Your task to perform on an android device: delete the emails in spam in the gmail app Image 0: 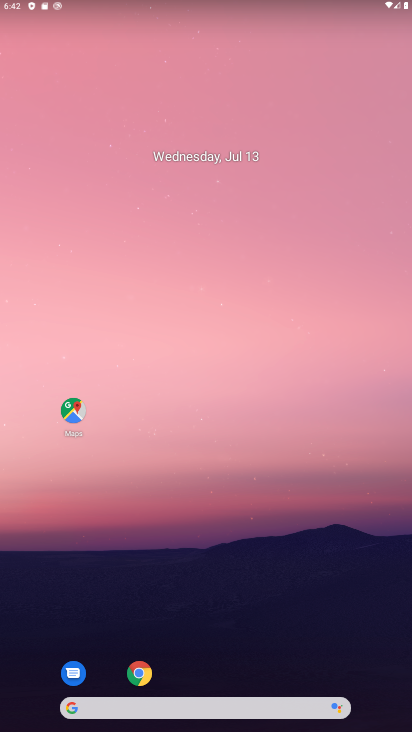
Step 0: drag from (206, 584) to (202, 32)
Your task to perform on an android device: delete the emails in spam in the gmail app Image 1: 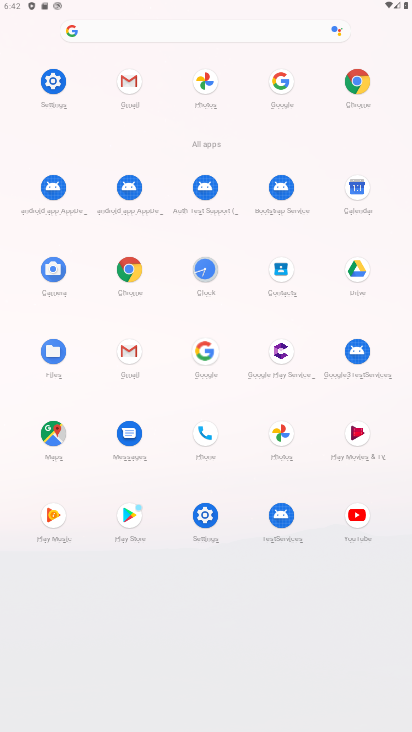
Step 1: click (141, 83)
Your task to perform on an android device: delete the emails in spam in the gmail app Image 2: 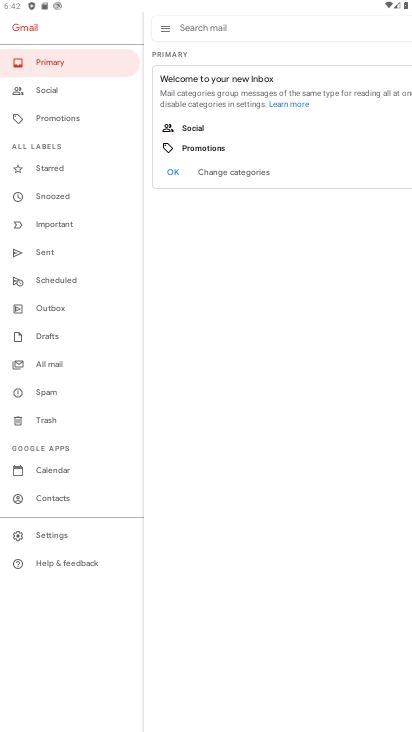
Step 2: click (51, 395)
Your task to perform on an android device: delete the emails in spam in the gmail app Image 3: 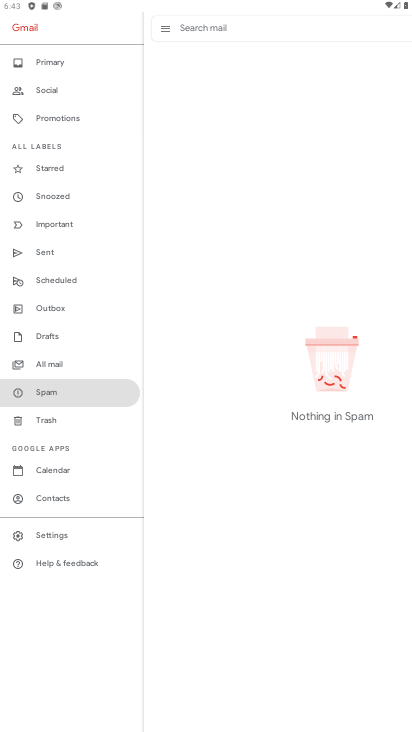
Step 3: task complete